Your task to perform on an android device: What is the recent news? Image 0: 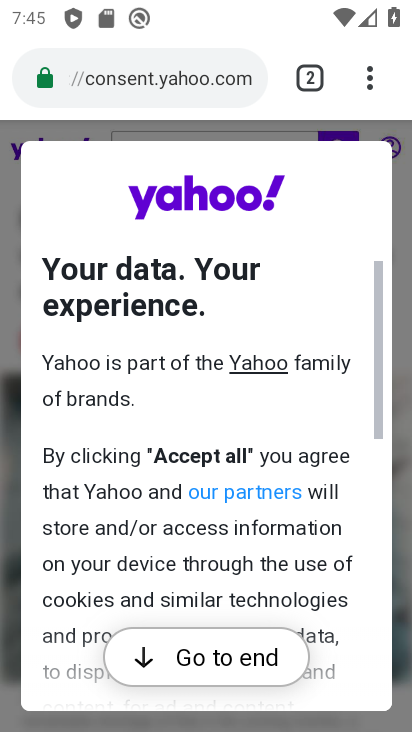
Step 0: press back button
Your task to perform on an android device: What is the recent news? Image 1: 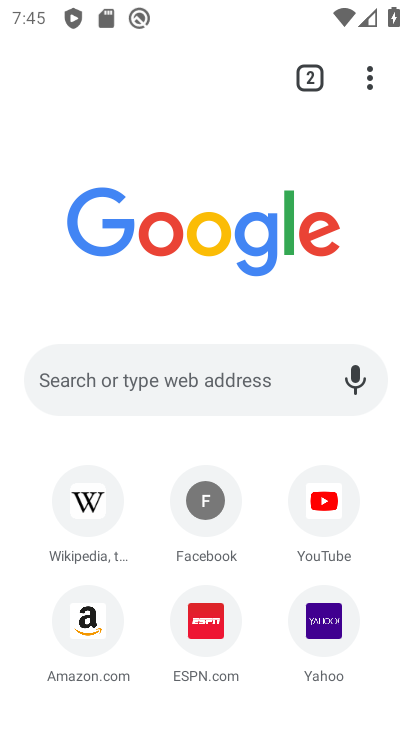
Step 1: press back button
Your task to perform on an android device: What is the recent news? Image 2: 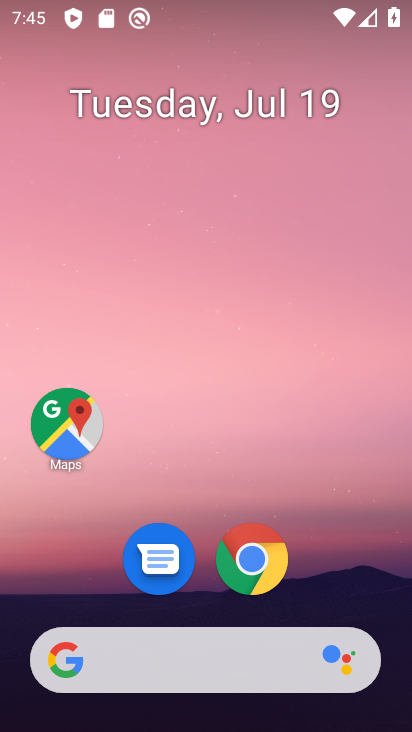
Step 2: drag from (83, 582) to (276, 10)
Your task to perform on an android device: What is the recent news? Image 3: 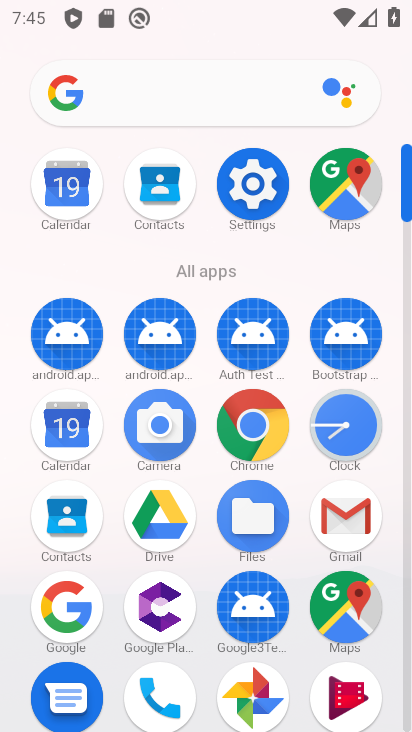
Step 3: drag from (202, 647) to (299, 201)
Your task to perform on an android device: What is the recent news? Image 4: 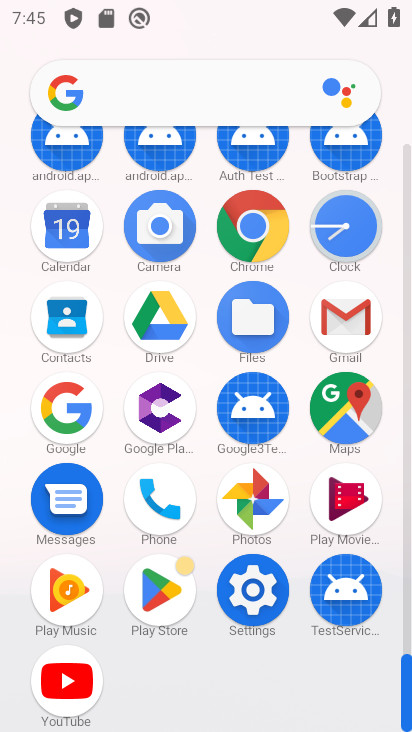
Step 4: click (50, 403)
Your task to perform on an android device: What is the recent news? Image 5: 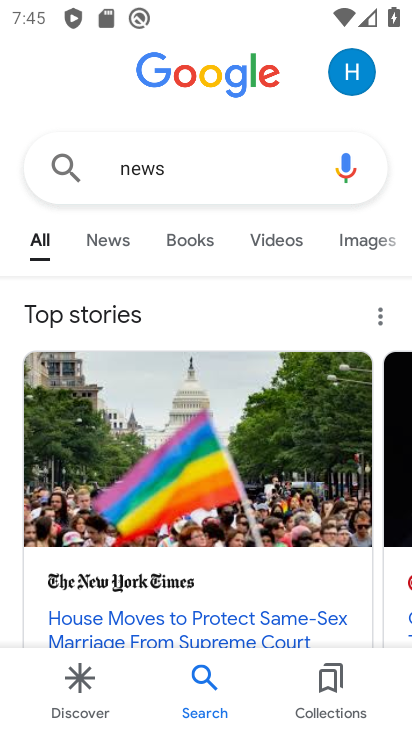
Step 5: click (111, 165)
Your task to perform on an android device: What is the recent news? Image 6: 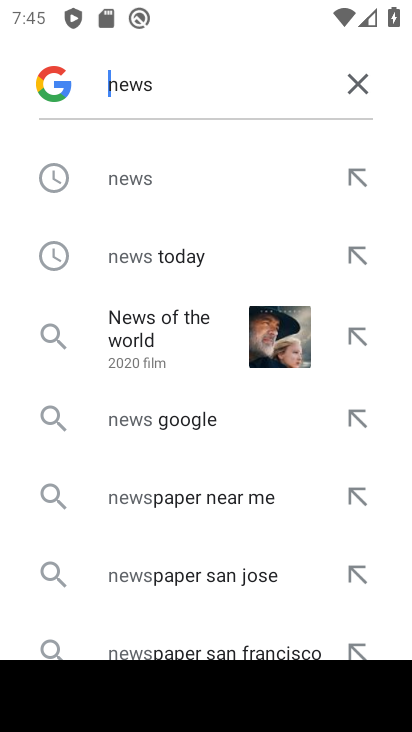
Step 6: type " recent"
Your task to perform on an android device: What is the recent news? Image 7: 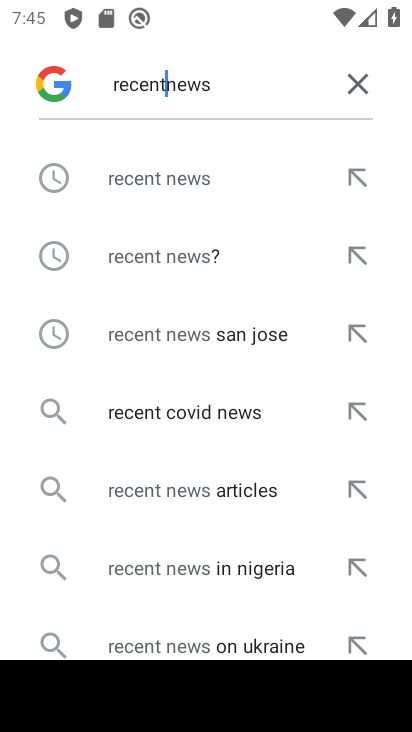
Step 7: click (156, 173)
Your task to perform on an android device: What is the recent news? Image 8: 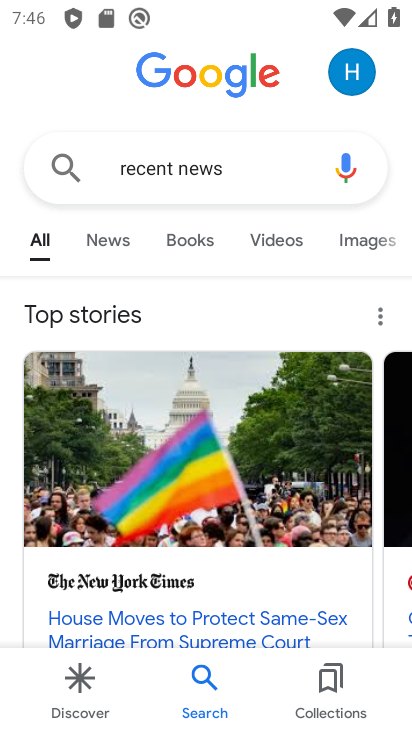
Step 8: task complete